Your task to perform on an android device: What's the weather going to be this weekend? Image 0: 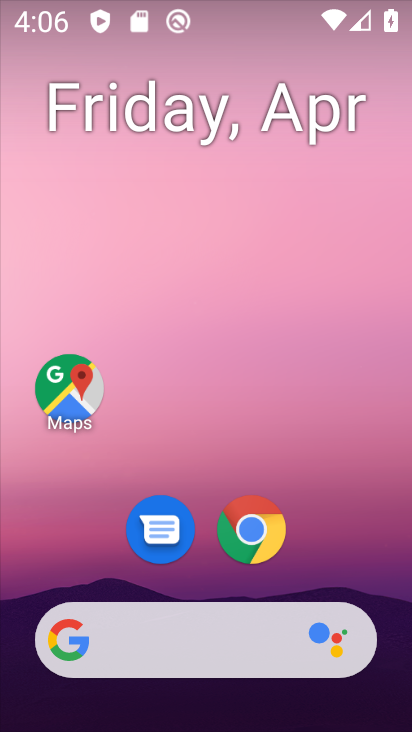
Step 0: click (196, 147)
Your task to perform on an android device: What's the weather going to be this weekend? Image 1: 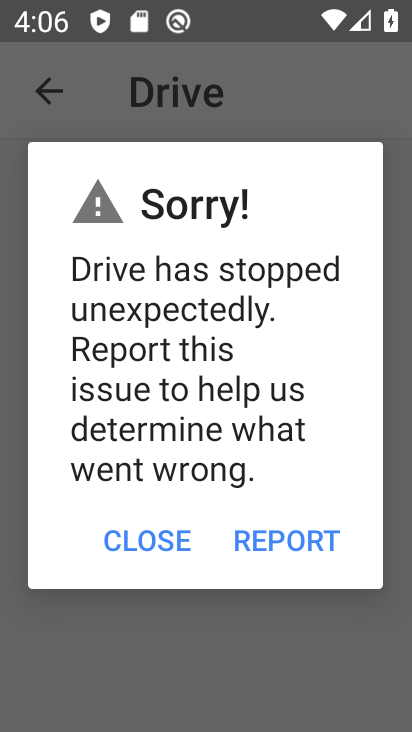
Step 1: press home button
Your task to perform on an android device: What's the weather going to be this weekend? Image 2: 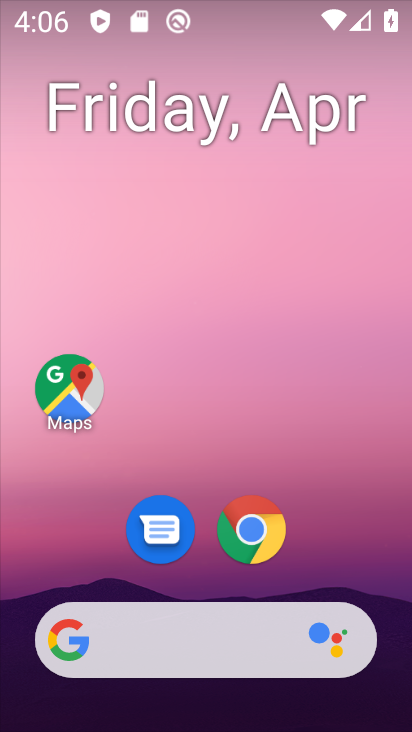
Step 2: drag from (8, 285) to (390, 299)
Your task to perform on an android device: What's the weather going to be this weekend? Image 3: 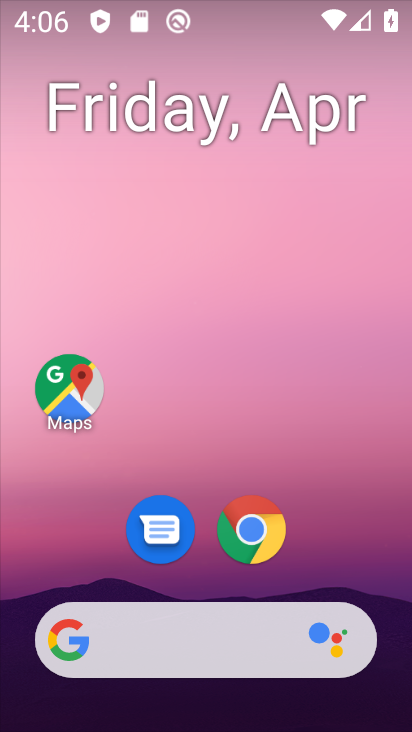
Step 3: drag from (11, 308) to (348, 299)
Your task to perform on an android device: What's the weather going to be this weekend? Image 4: 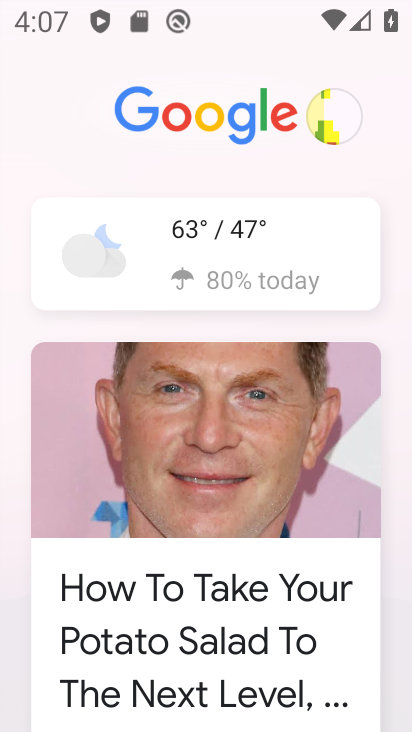
Step 4: click (250, 244)
Your task to perform on an android device: What's the weather going to be this weekend? Image 5: 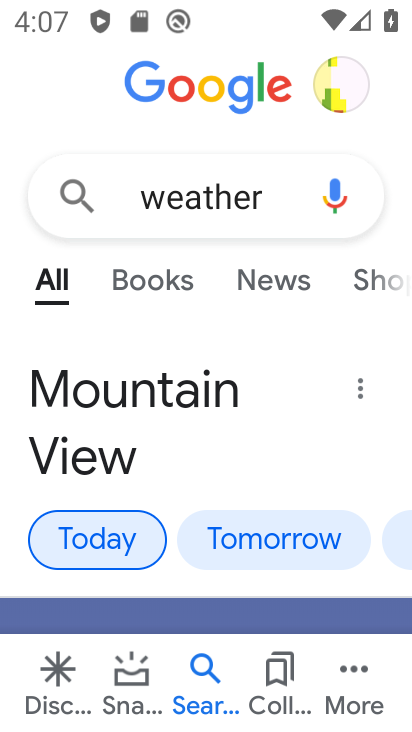
Step 5: drag from (321, 539) to (127, 548)
Your task to perform on an android device: What's the weather going to be this weekend? Image 6: 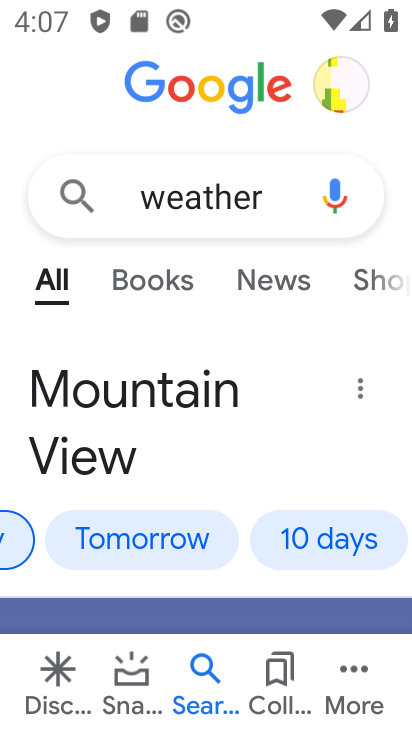
Step 6: click (282, 538)
Your task to perform on an android device: What's the weather going to be this weekend? Image 7: 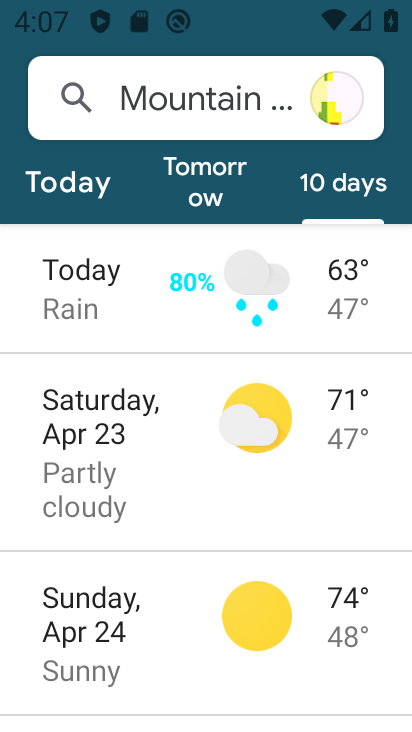
Step 7: task complete